Your task to perform on an android device: What's the weather? Image 0: 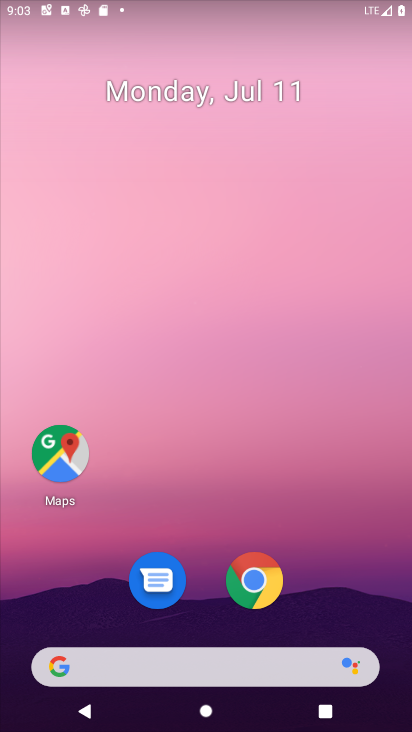
Step 0: click (242, 670)
Your task to perform on an android device: What's the weather? Image 1: 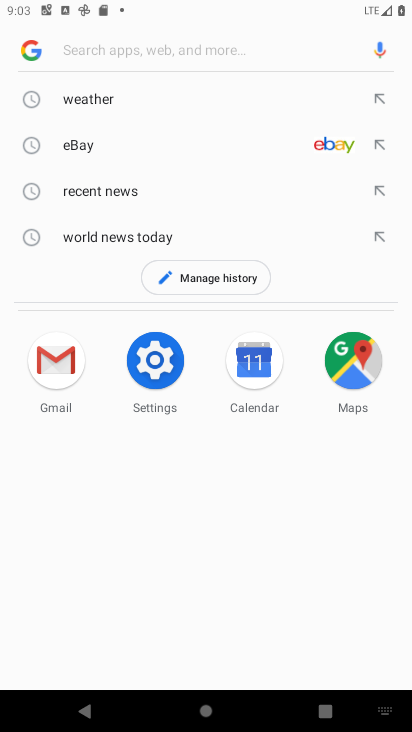
Step 1: click (87, 100)
Your task to perform on an android device: What's the weather? Image 2: 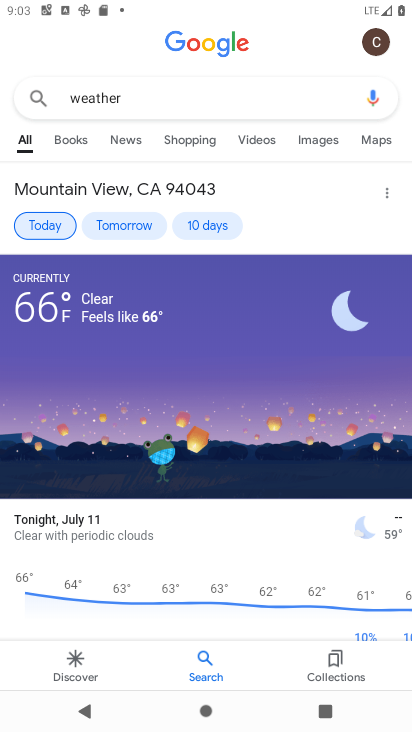
Step 2: click (48, 220)
Your task to perform on an android device: What's the weather? Image 3: 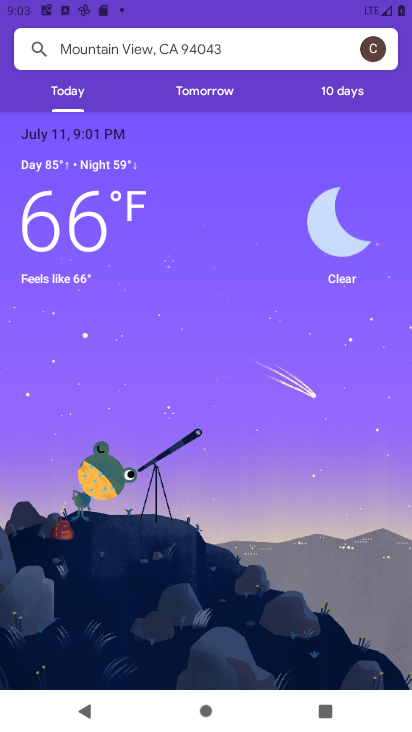
Step 3: task complete